Your task to perform on an android device: create a new album in the google photos Image 0: 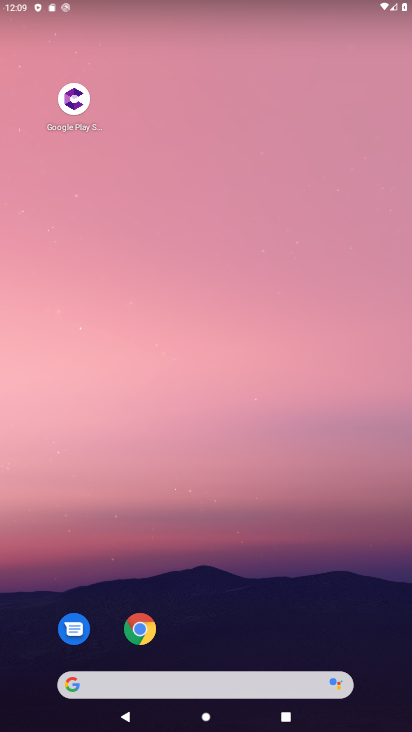
Step 0: drag from (239, 651) to (235, 132)
Your task to perform on an android device: create a new album in the google photos Image 1: 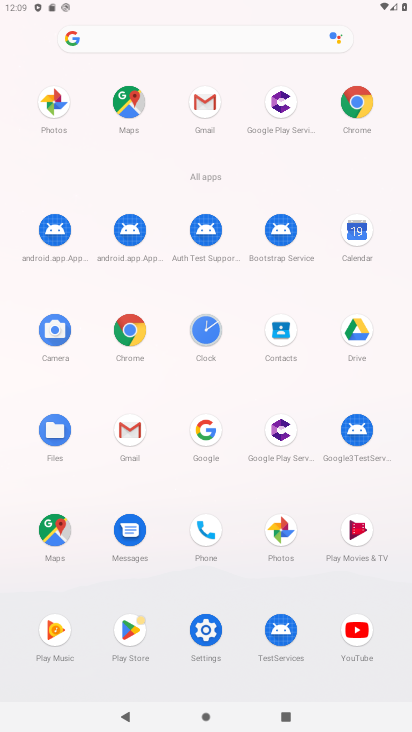
Step 1: click (296, 526)
Your task to perform on an android device: create a new album in the google photos Image 2: 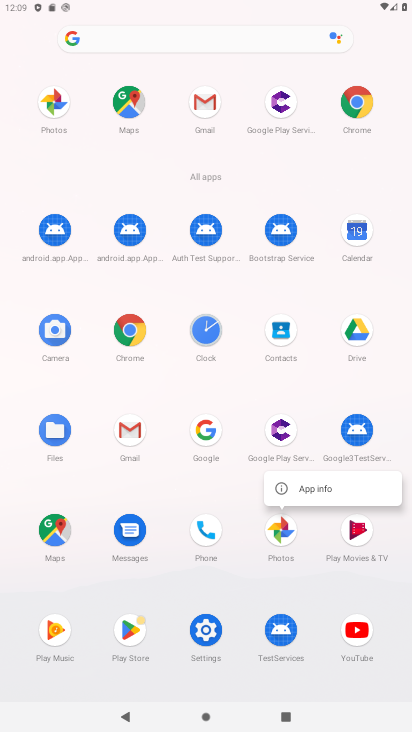
Step 2: click (270, 532)
Your task to perform on an android device: create a new album in the google photos Image 3: 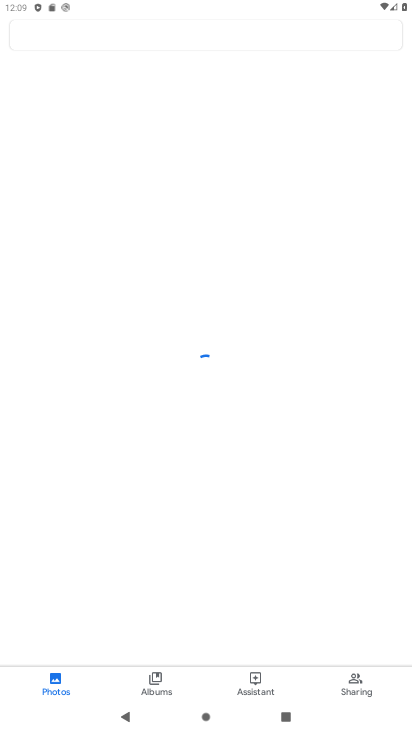
Step 3: click (170, 682)
Your task to perform on an android device: create a new album in the google photos Image 4: 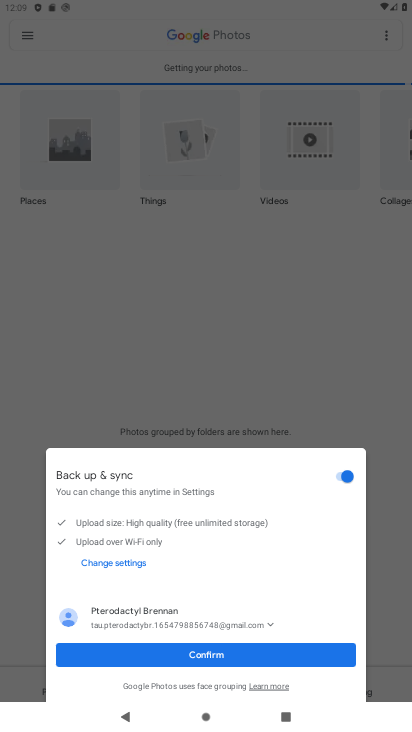
Step 4: click (177, 656)
Your task to perform on an android device: create a new album in the google photos Image 5: 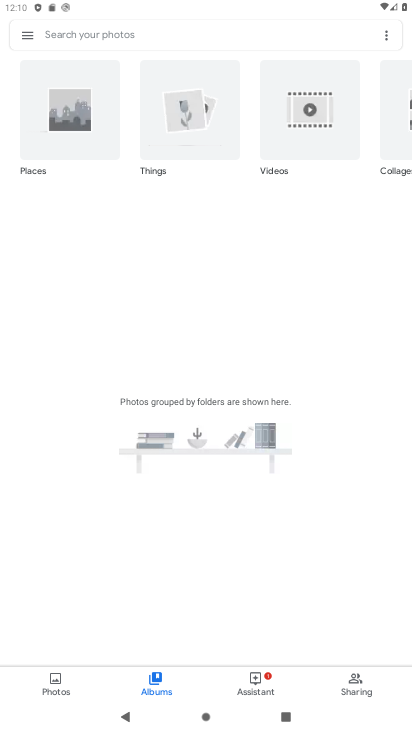
Step 5: task complete